Your task to perform on an android device: Open Chrome and go to settings Image 0: 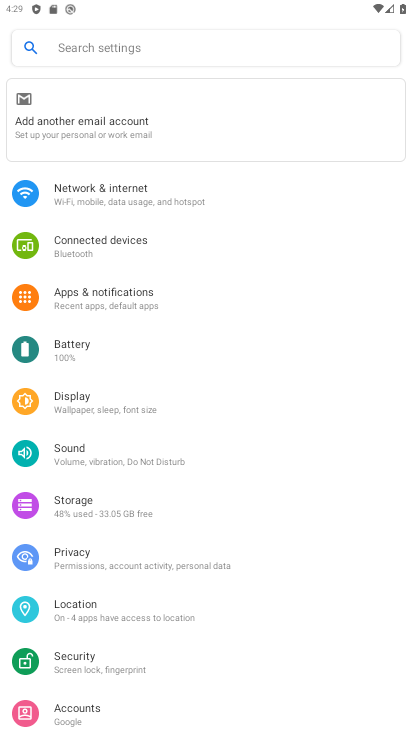
Step 0: press home button
Your task to perform on an android device: Open Chrome and go to settings Image 1: 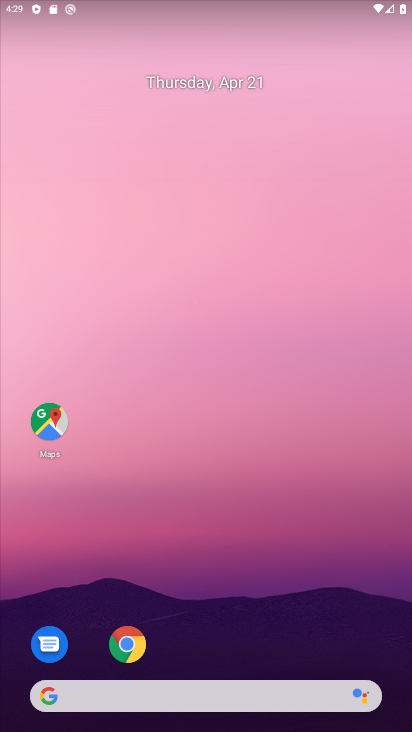
Step 1: click (127, 647)
Your task to perform on an android device: Open Chrome and go to settings Image 2: 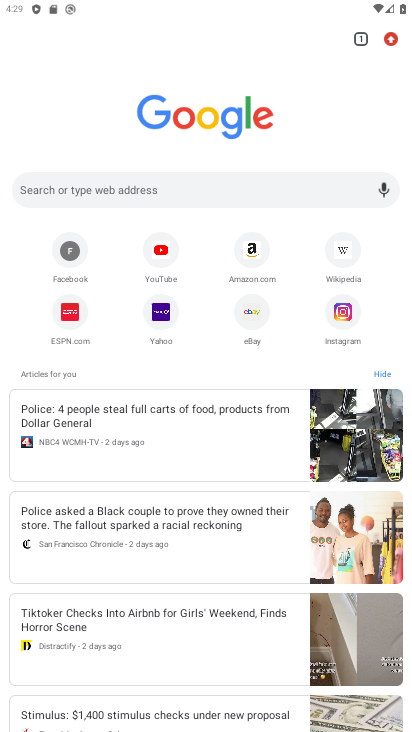
Step 2: task complete